Your task to perform on an android device: open chrome privacy settings Image 0: 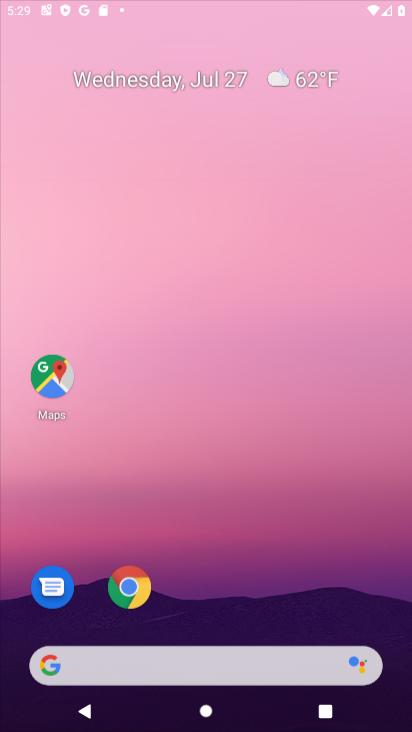
Step 0: press home button
Your task to perform on an android device: open chrome privacy settings Image 1: 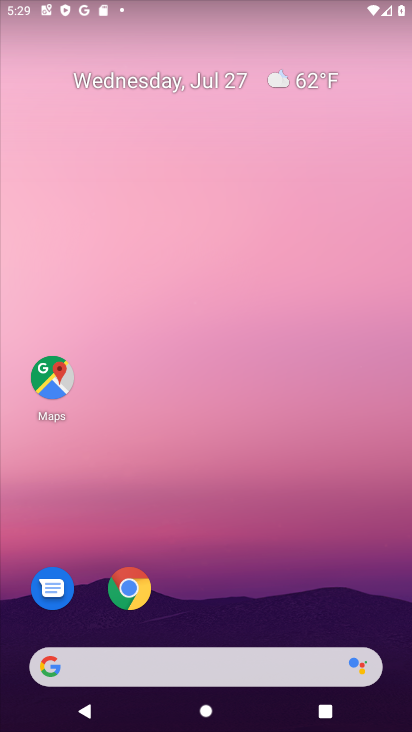
Step 1: click (124, 588)
Your task to perform on an android device: open chrome privacy settings Image 2: 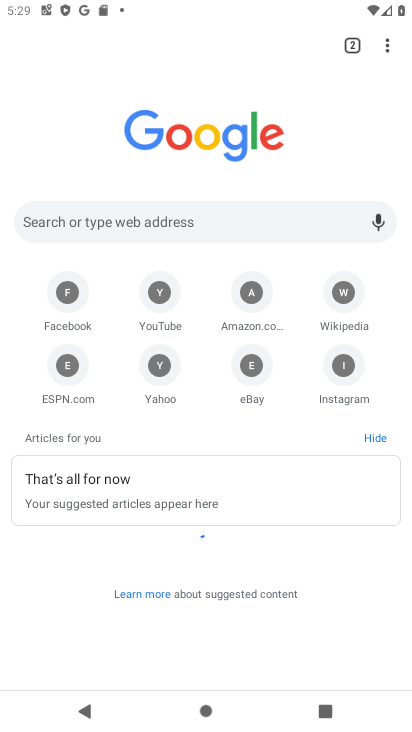
Step 2: click (383, 48)
Your task to perform on an android device: open chrome privacy settings Image 3: 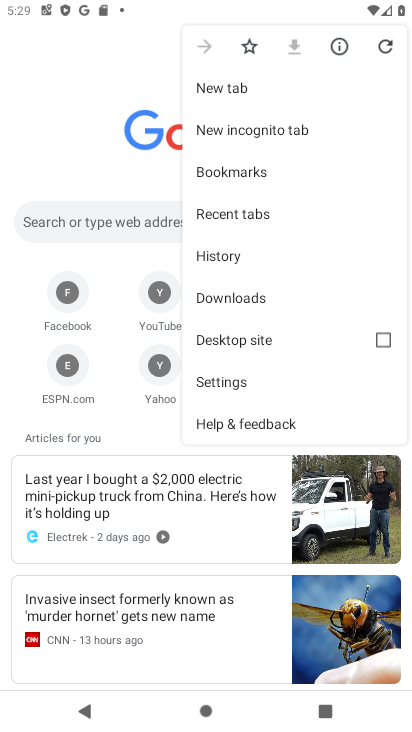
Step 3: click (217, 383)
Your task to perform on an android device: open chrome privacy settings Image 4: 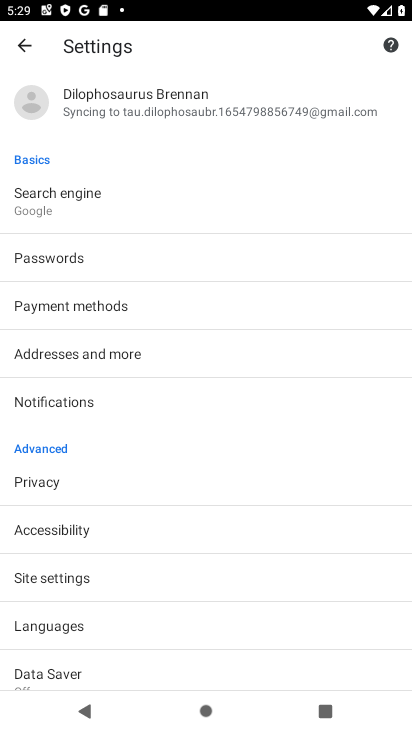
Step 4: click (43, 476)
Your task to perform on an android device: open chrome privacy settings Image 5: 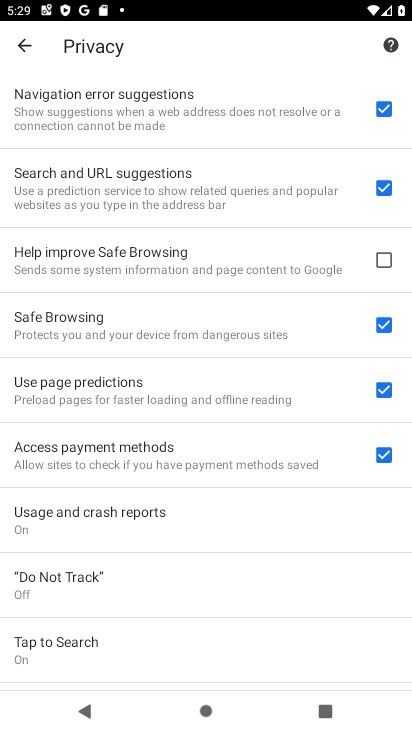
Step 5: task complete